Your task to perform on an android device: What is the recent news? Image 0: 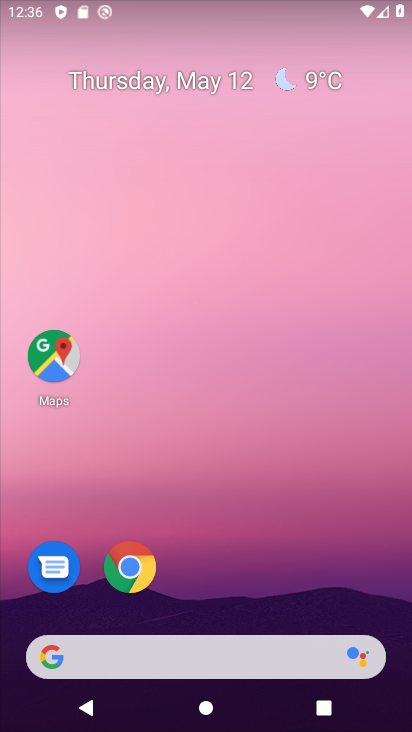
Step 0: drag from (7, 289) to (403, 243)
Your task to perform on an android device: What is the recent news? Image 1: 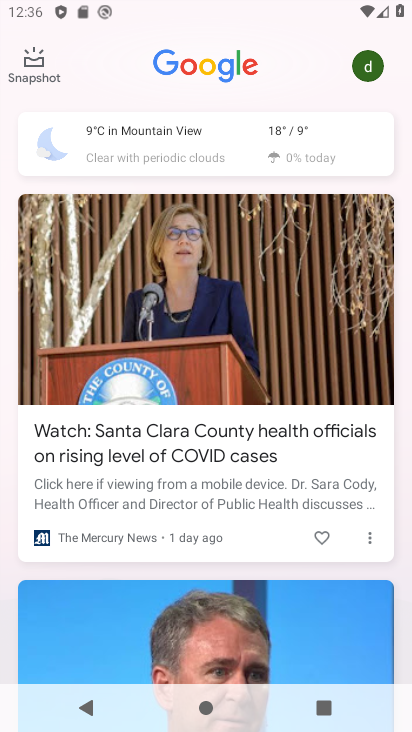
Step 1: task complete